Your task to perform on an android device: Set the phone to "Do not disturb". Image 0: 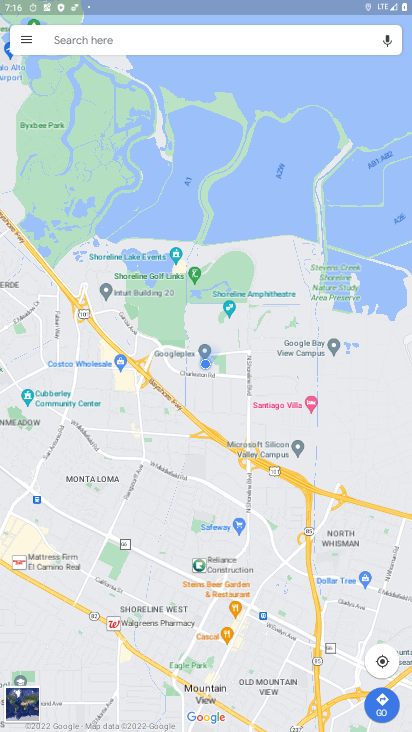
Step 0: click (256, 0)
Your task to perform on an android device: Set the phone to "Do not disturb". Image 1: 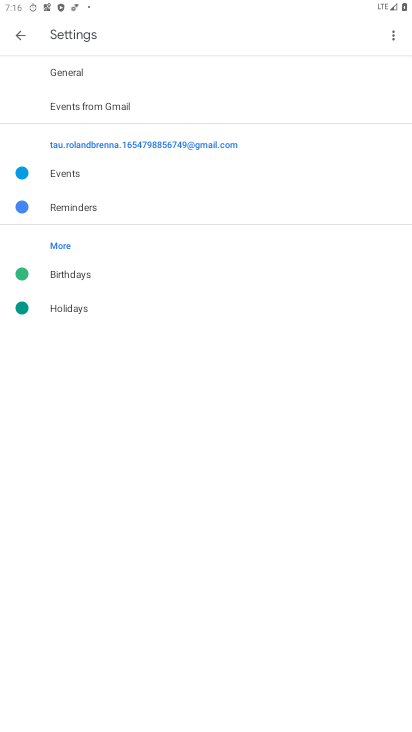
Step 1: press home button
Your task to perform on an android device: Set the phone to "Do not disturb". Image 2: 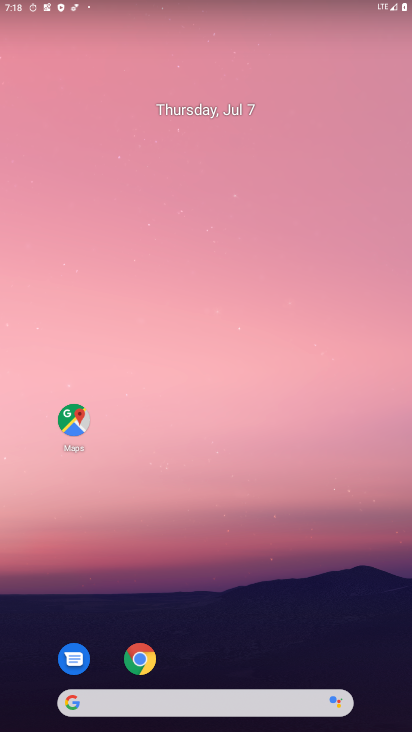
Step 2: drag from (183, 1) to (179, 606)
Your task to perform on an android device: Set the phone to "Do not disturb". Image 3: 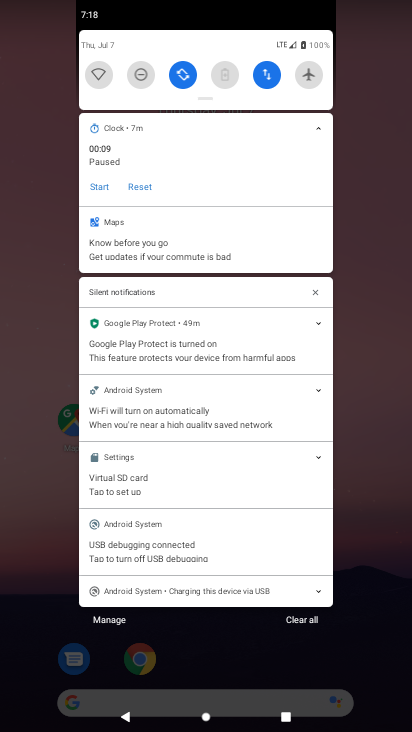
Step 3: click (141, 73)
Your task to perform on an android device: Set the phone to "Do not disturb". Image 4: 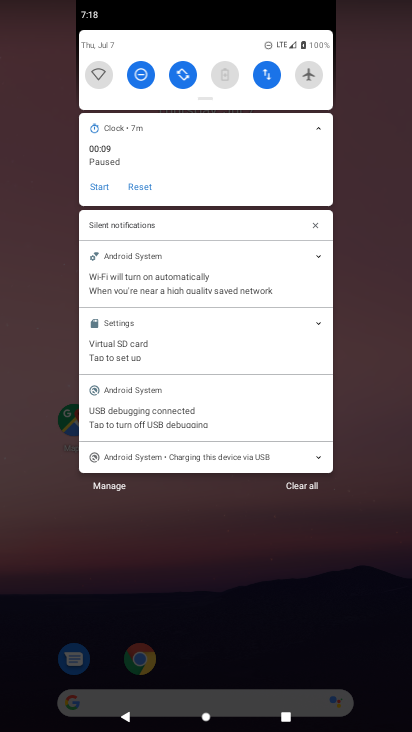
Step 4: task complete